Your task to perform on an android device: turn on improve location accuracy Image 0: 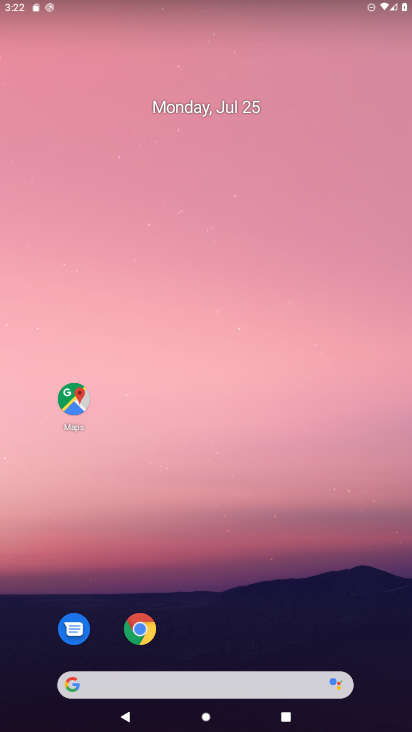
Step 0: drag from (305, 618) to (322, 23)
Your task to perform on an android device: turn on improve location accuracy Image 1: 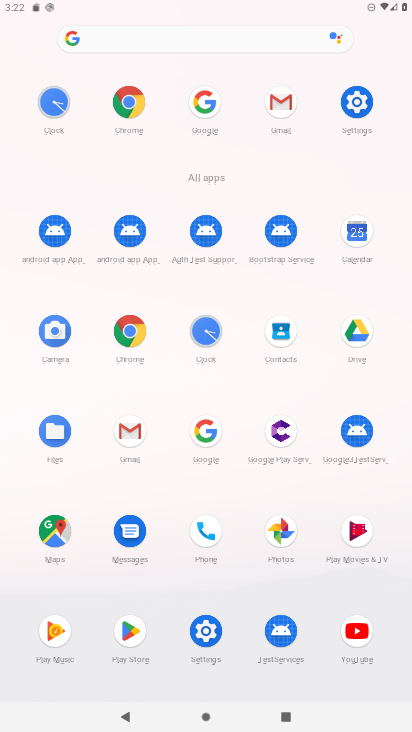
Step 1: click (345, 90)
Your task to perform on an android device: turn on improve location accuracy Image 2: 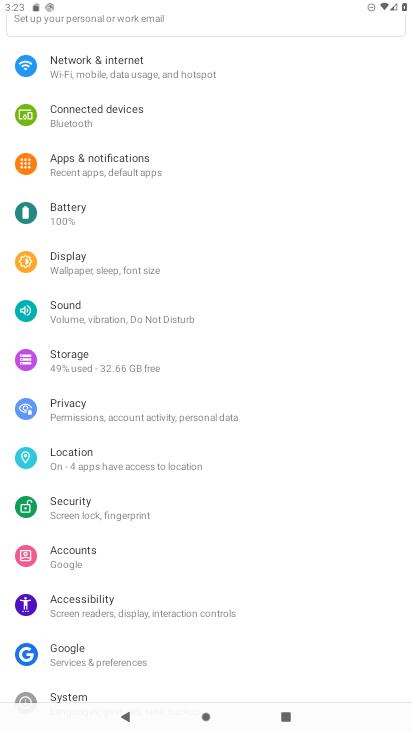
Step 2: click (77, 457)
Your task to perform on an android device: turn on improve location accuracy Image 3: 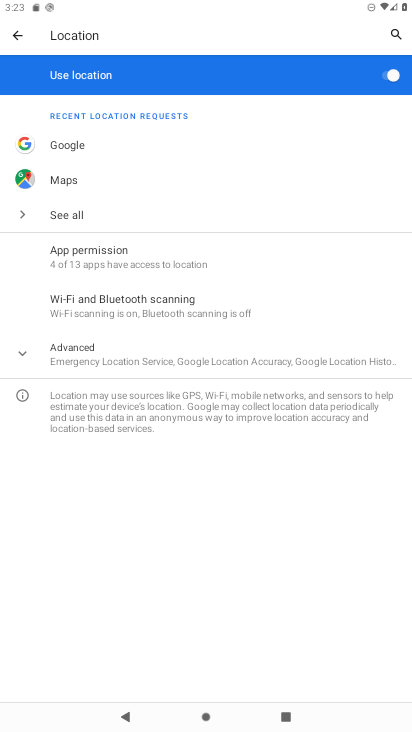
Step 3: click (108, 356)
Your task to perform on an android device: turn on improve location accuracy Image 4: 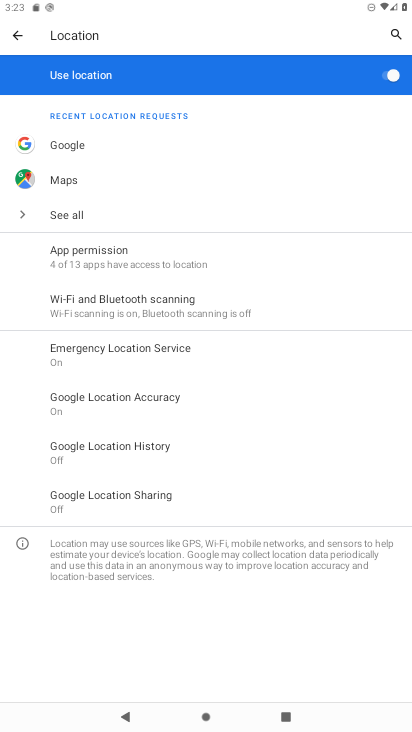
Step 4: click (113, 410)
Your task to perform on an android device: turn on improve location accuracy Image 5: 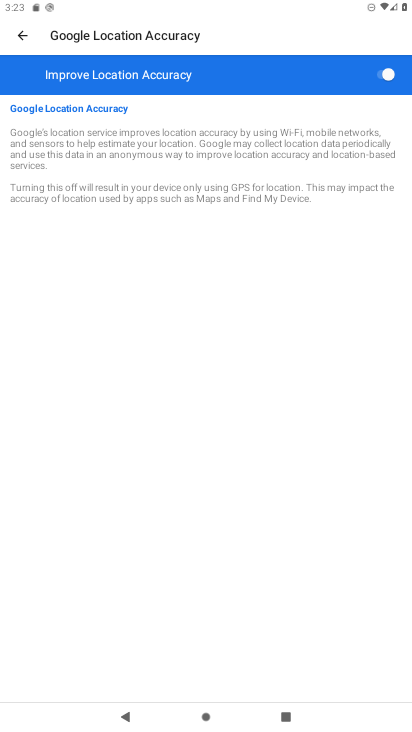
Step 5: task complete